Your task to perform on an android device: empty trash in the gmail app Image 0: 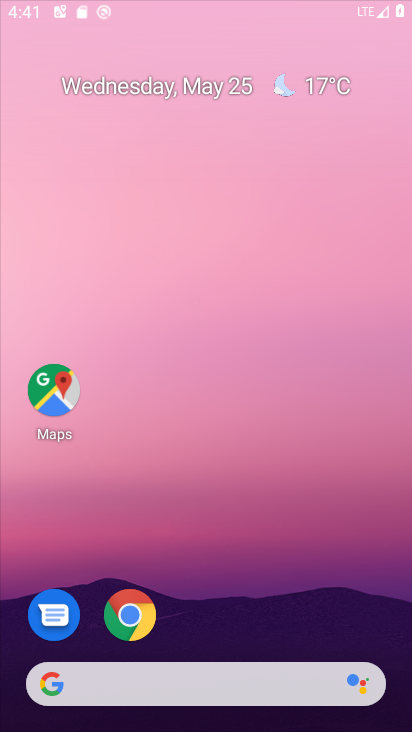
Step 0: click (215, 61)
Your task to perform on an android device: empty trash in the gmail app Image 1: 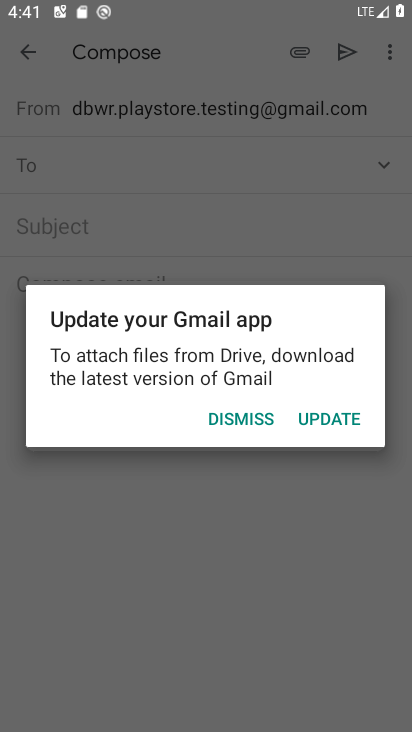
Step 1: press home button
Your task to perform on an android device: empty trash in the gmail app Image 2: 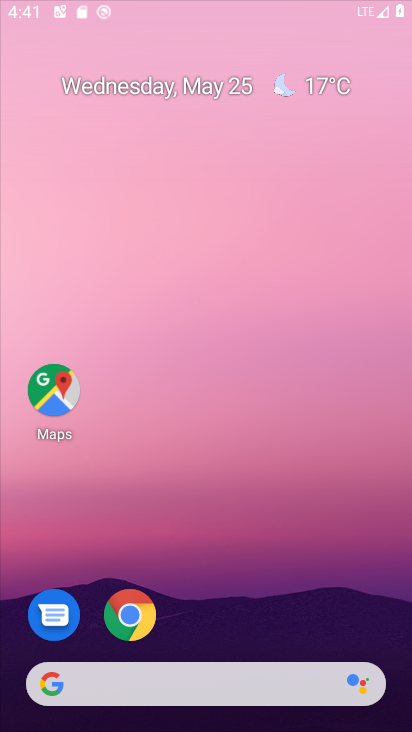
Step 2: drag from (295, 528) to (268, 87)
Your task to perform on an android device: empty trash in the gmail app Image 3: 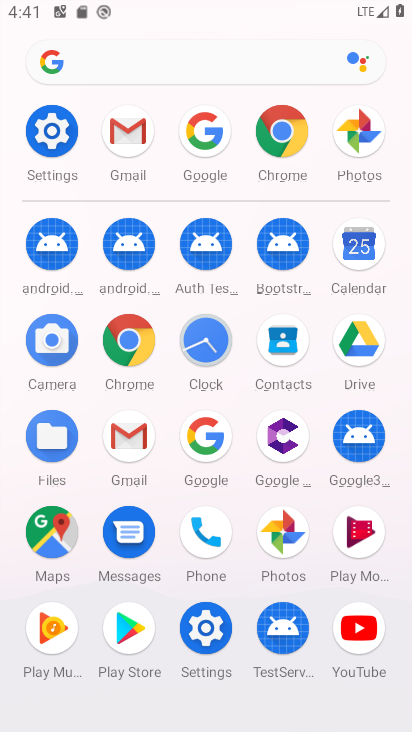
Step 3: click (113, 438)
Your task to perform on an android device: empty trash in the gmail app Image 4: 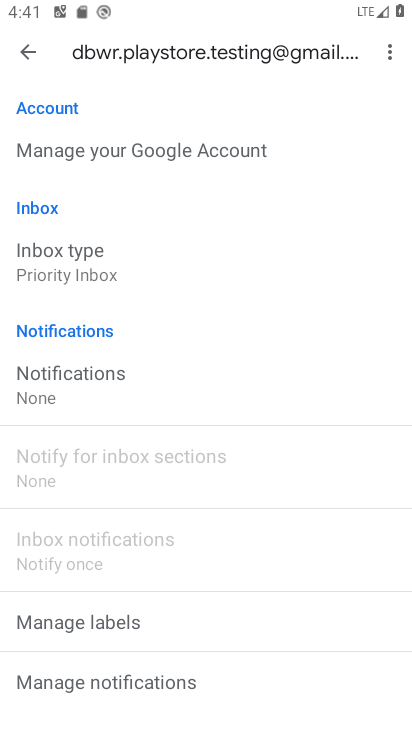
Step 4: click (34, 51)
Your task to perform on an android device: empty trash in the gmail app Image 5: 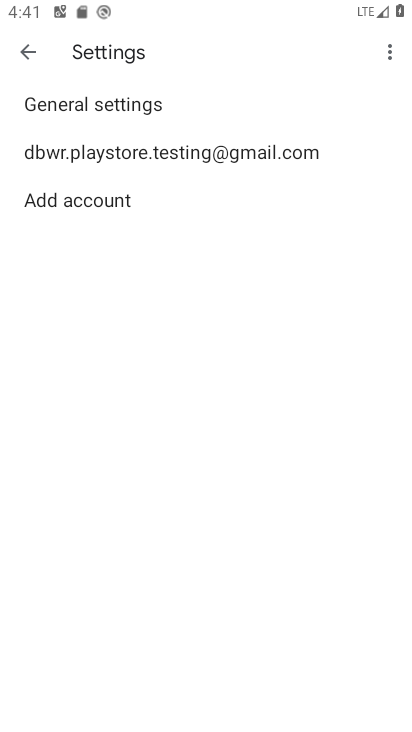
Step 5: click (37, 46)
Your task to perform on an android device: empty trash in the gmail app Image 6: 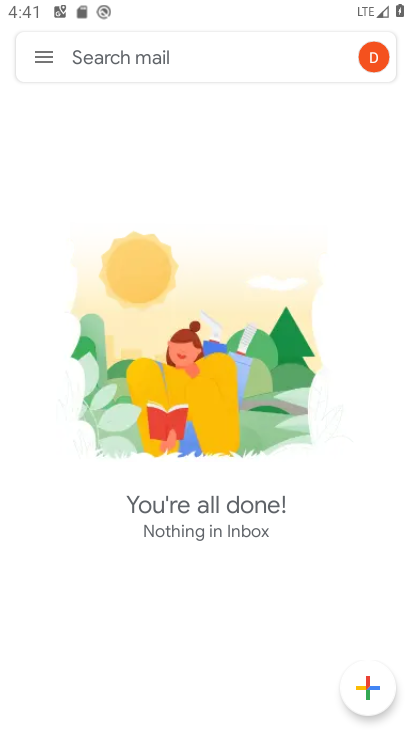
Step 6: click (51, 44)
Your task to perform on an android device: empty trash in the gmail app Image 7: 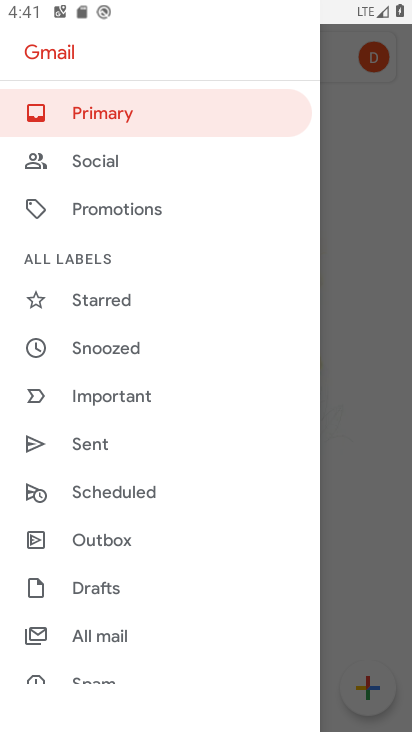
Step 7: drag from (202, 473) to (158, 147)
Your task to perform on an android device: empty trash in the gmail app Image 8: 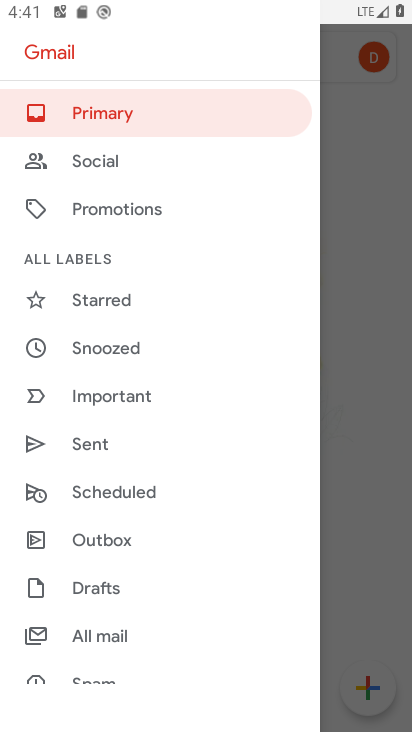
Step 8: drag from (129, 642) to (196, 130)
Your task to perform on an android device: empty trash in the gmail app Image 9: 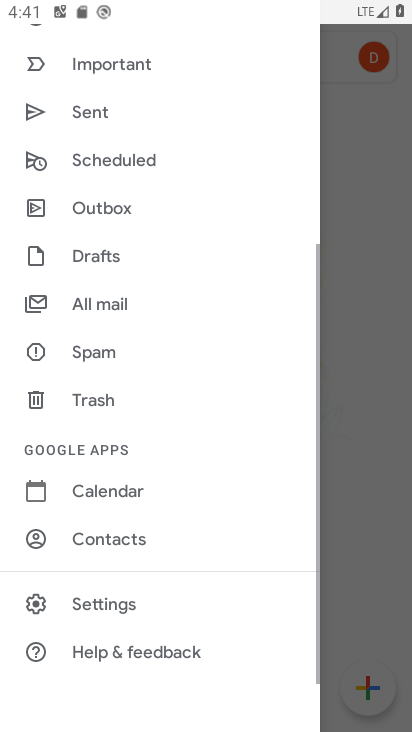
Step 9: click (107, 405)
Your task to perform on an android device: empty trash in the gmail app Image 10: 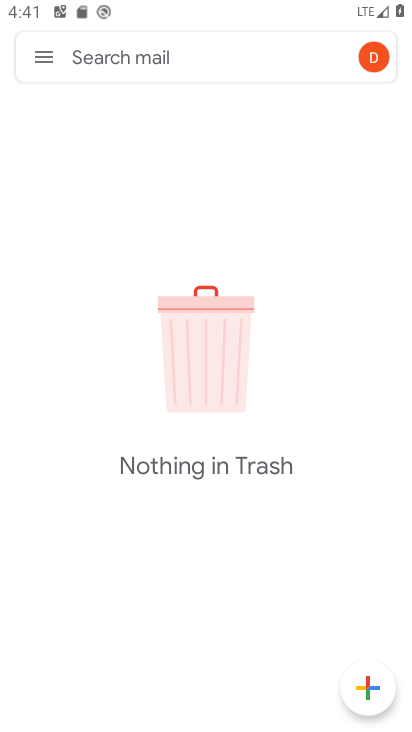
Step 10: task complete